Your task to perform on an android device: Open CNN.com Image 0: 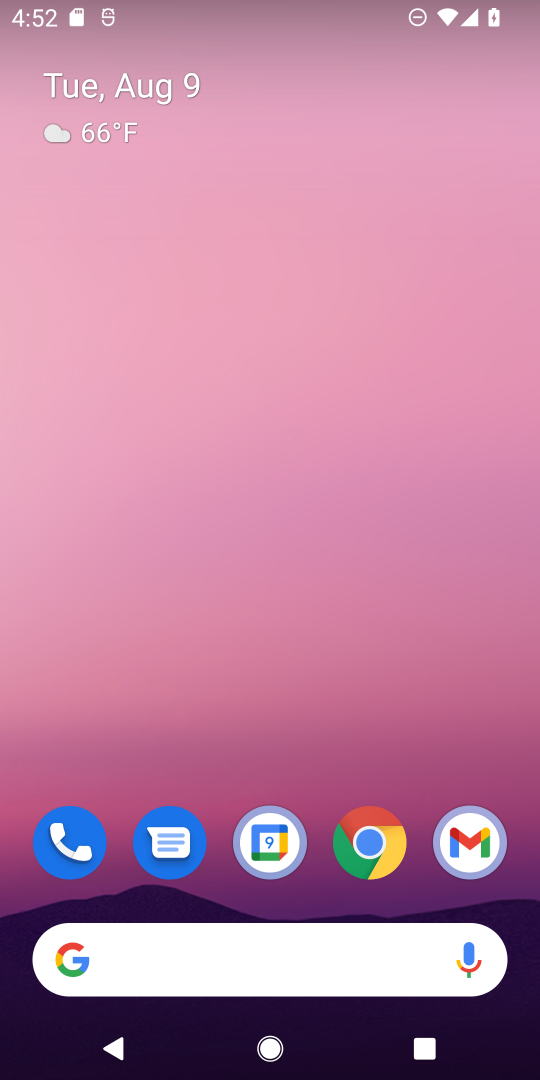
Step 0: drag from (311, 936) to (374, 57)
Your task to perform on an android device: Open CNN.com Image 1: 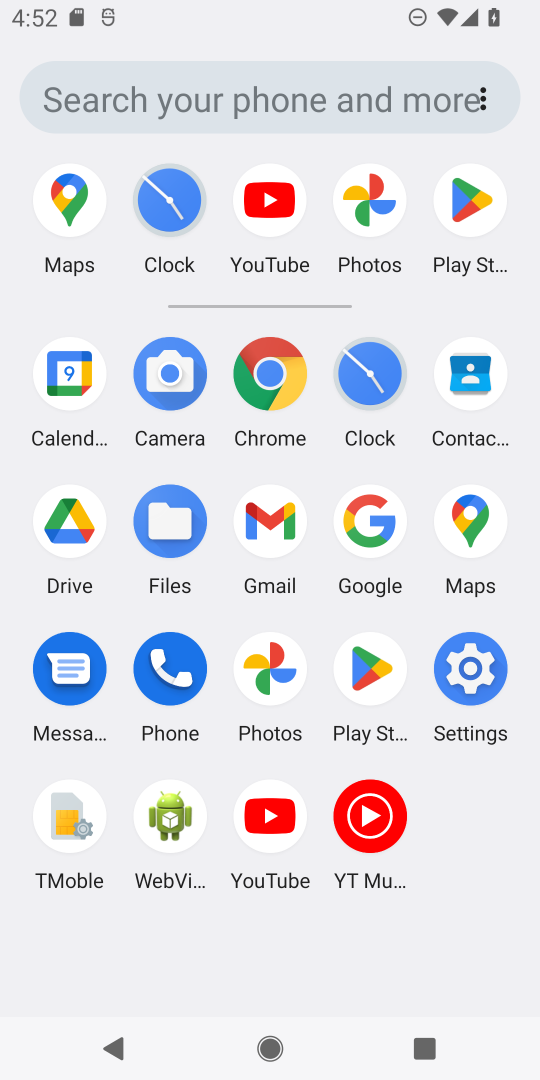
Step 1: click (276, 401)
Your task to perform on an android device: Open CNN.com Image 2: 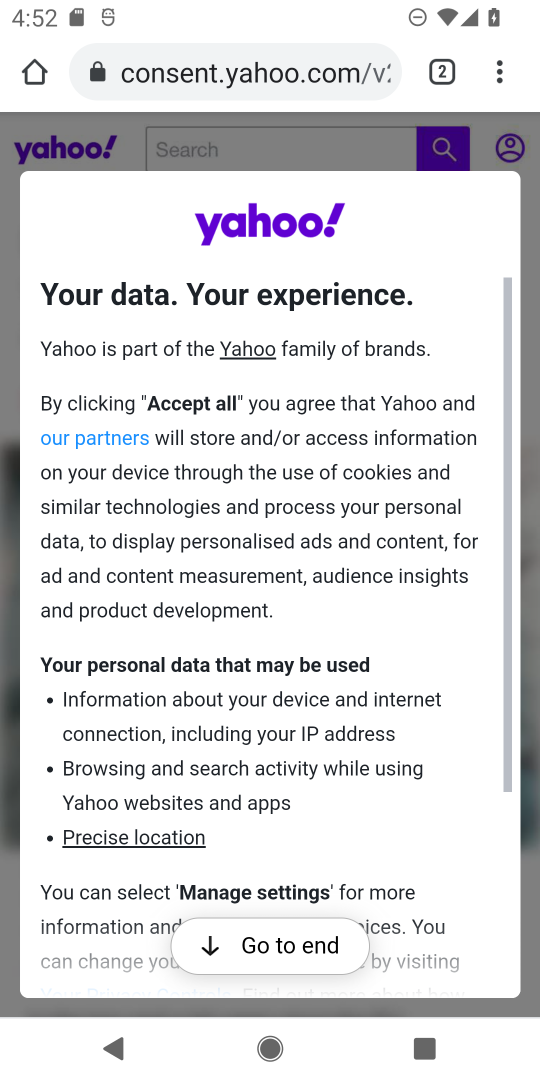
Step 2: click (314, 71)
Your task to perform on an android device: Open CNN.com Image 3: 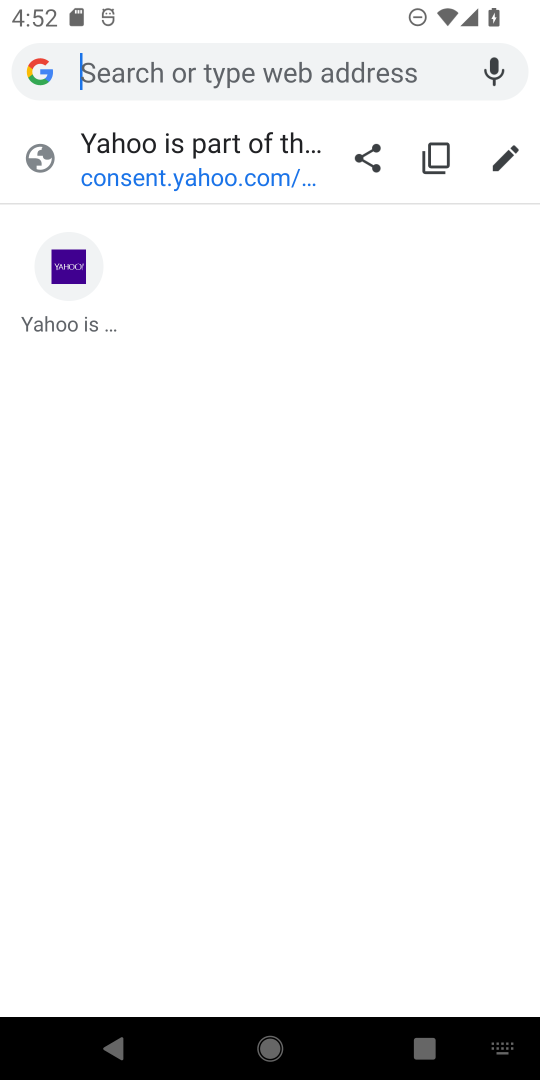
Step 3: type "cnn.com"
Your task to perform on an android device: Open CNN.com Image 4: 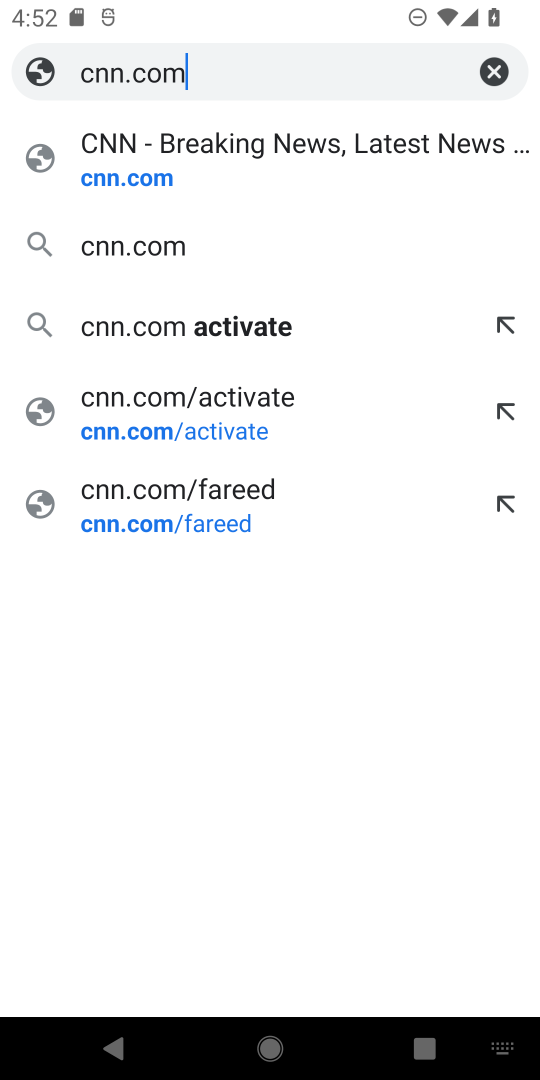
Step 4: click (222, 149)
Your task to perform on an android device: Open CNN.com Image 5: 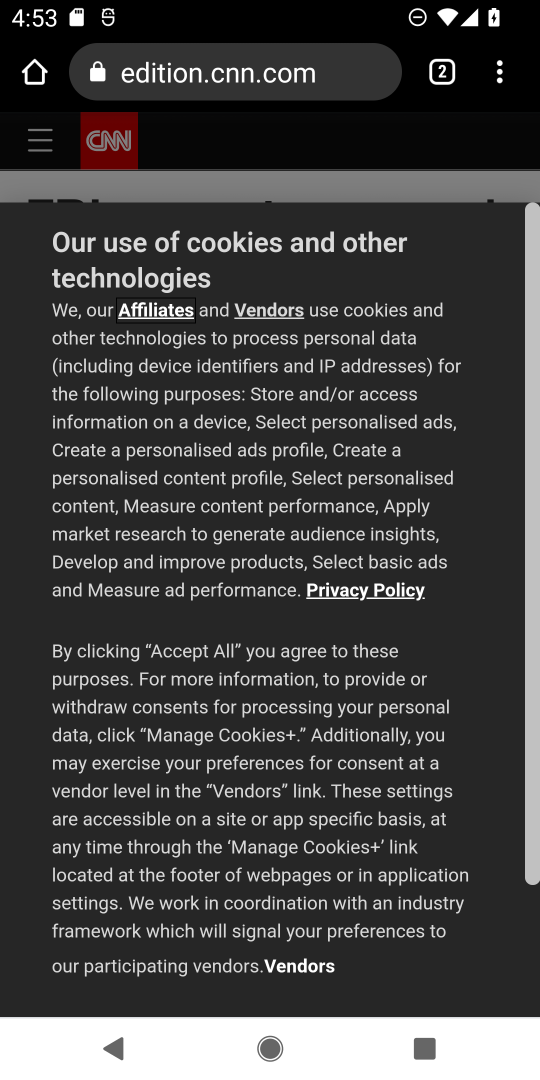
Step 5: task complete